Your task to perform on an android device: turn pop-ups off in chrome Image 0: 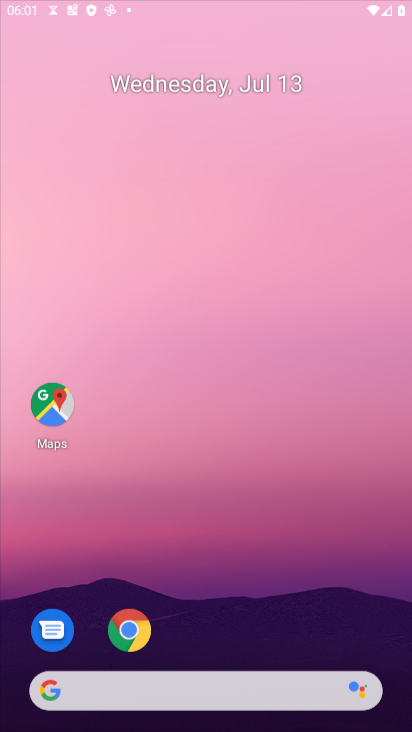
Step 0: drag from (283, 55) to (264, 119)
Your task to perform on an android device: turn pop-ups off in chrome Image 1: 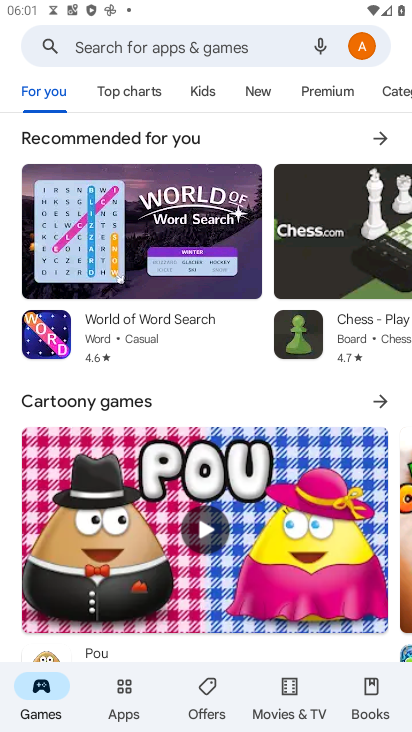
Step 1: press home button
Your task to perform on an android device: turn pop-ups off in chrome Image 2: 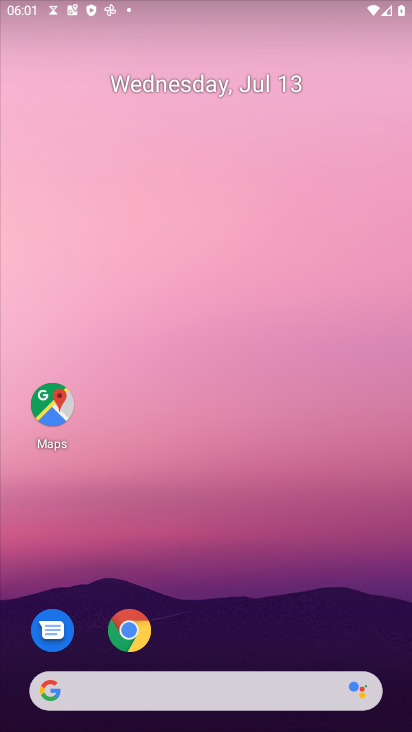
Step 2: drag from (278, 695) to (329, 88)
Your task to perform on an android device: turn pop-ups off in chrome Image 3: 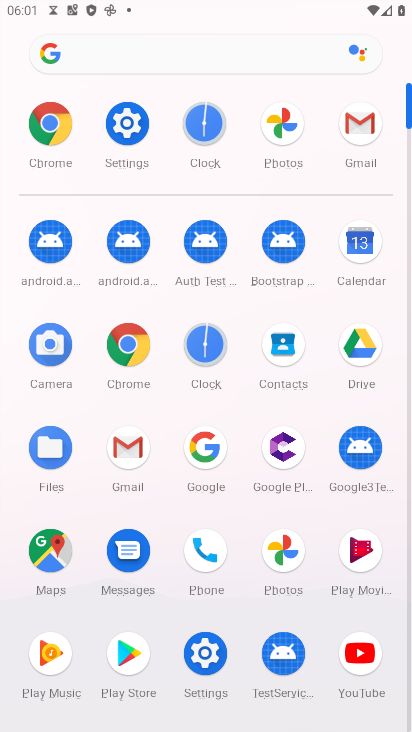
Step 3: click (125, 350)
Your task to perform on an android device: turn pop-ups off in chrome Image 4: 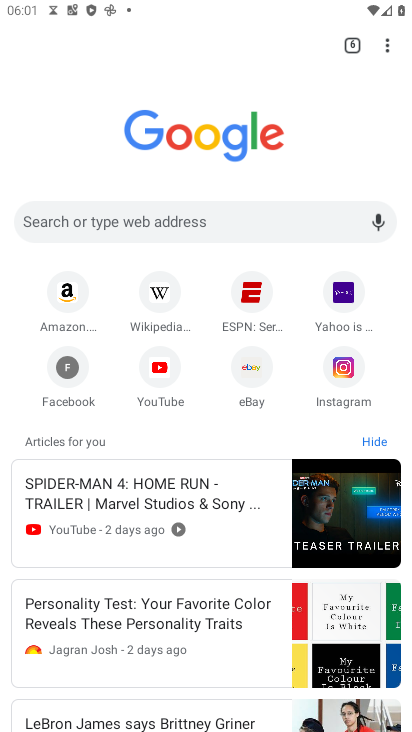
Step 4: drag from (384, 47) to (271, 386)
Your task to perform on an android device: turn pop-ups off in chrome Image 5: 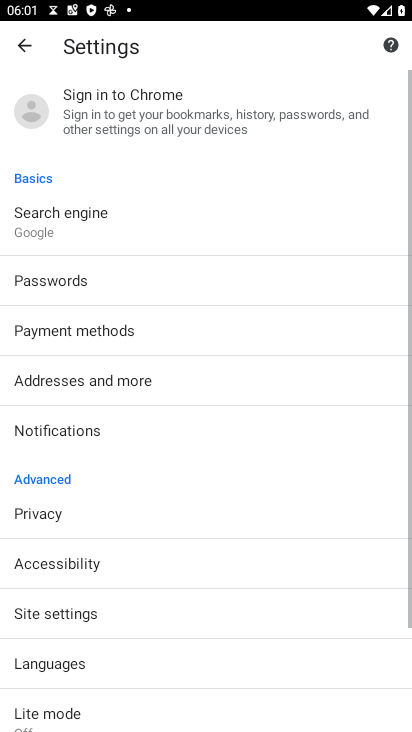
Step 5: click (135, 623)
Your task to perform on an android device: turn pop-ups off in chrome Image 6: 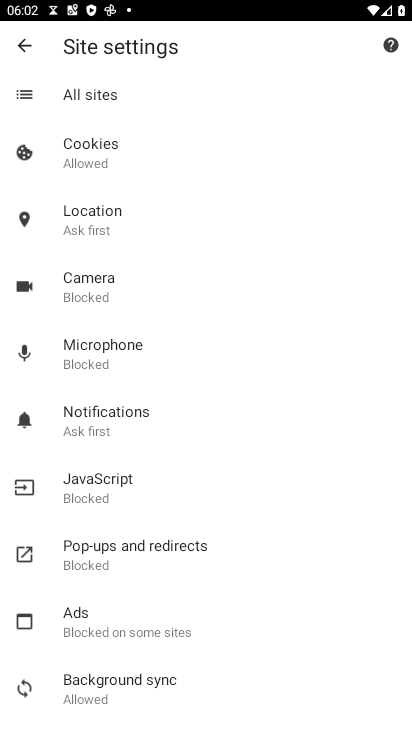
Step 6: click (128, 558)
Your task to perform on an android device: turn pop-ups off in chrome Image 7: 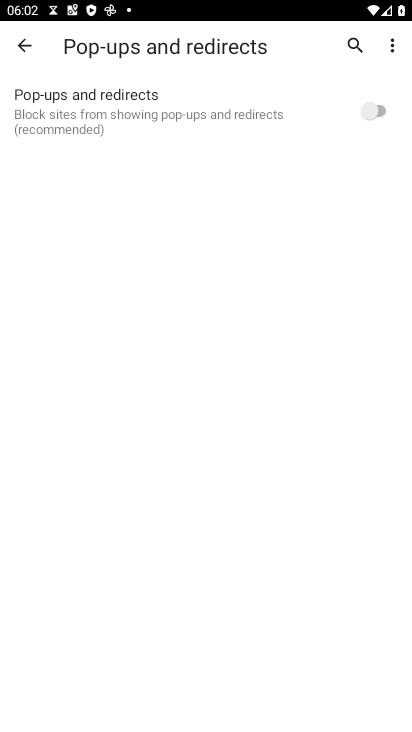
Step 7: click (384, 105)
Your task to perform on an android device: turn pop-ups off in chrome Image 8: 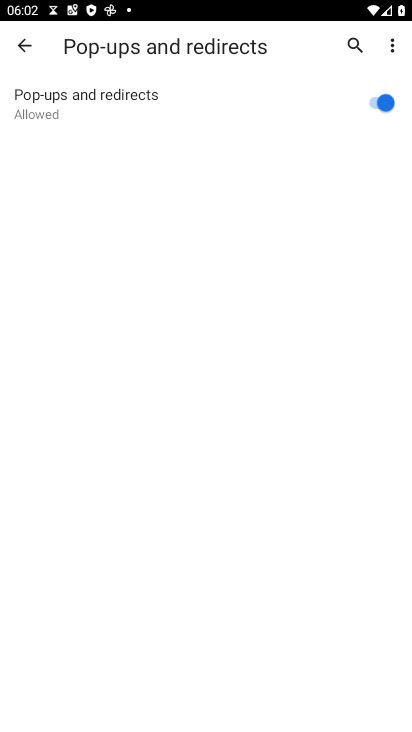
Step 8: task complete